Your task to perform on an android device: What's the weather today? Image 0: 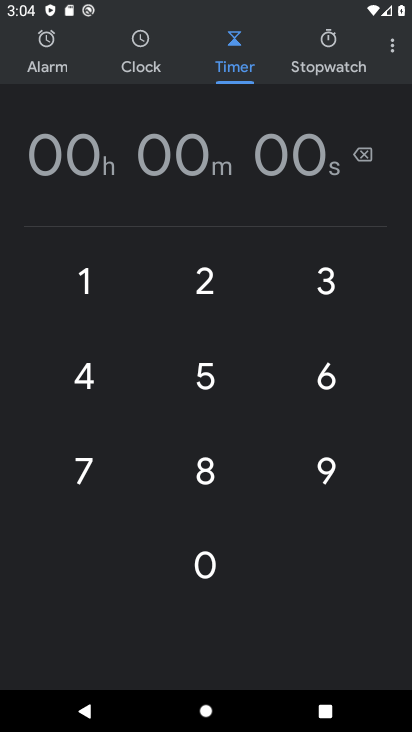
Step 0: press home button
Your task to perform on an android device: What's the weather today? Image 1: 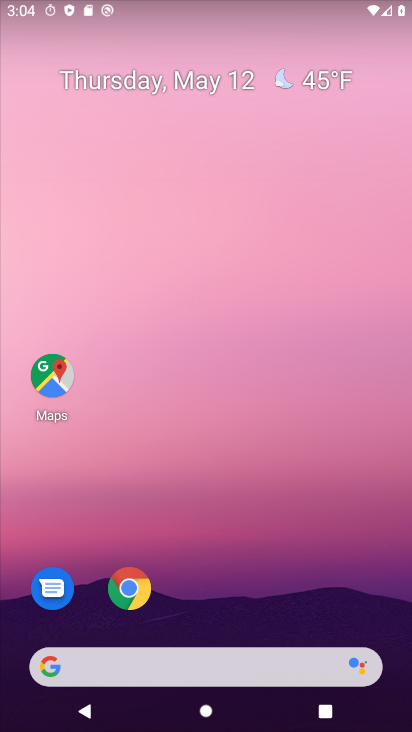
Step 1: drag from (213, 576) to (257, 220)
Your task to perform on an android device: What's the weather today? Image 2: 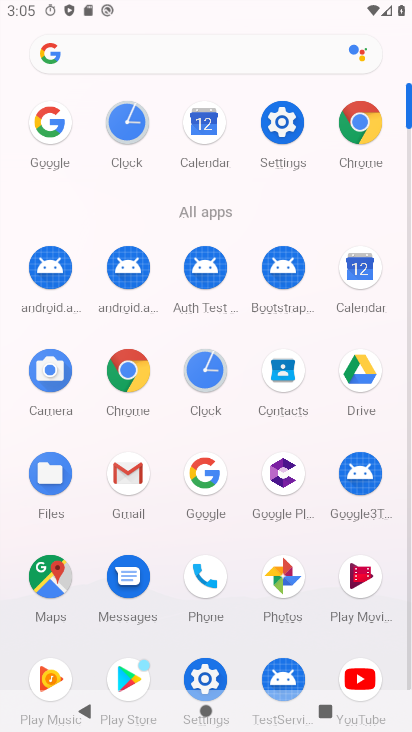
Step 2: click (209, 487)
Your task to perform on an android device: What's the weather today? Image 3: 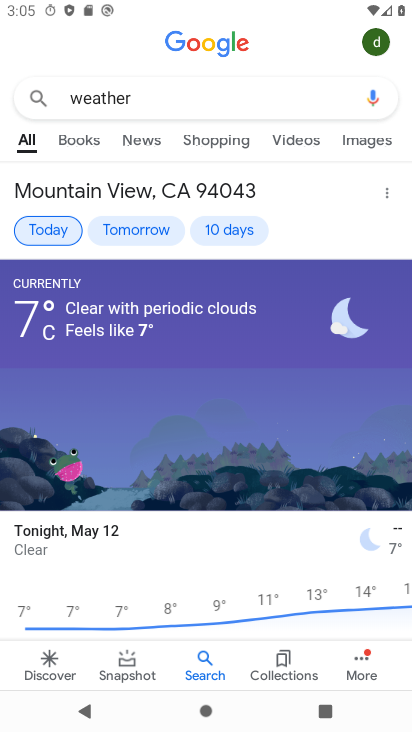
Step 3: task complete